Your task to perform on an android device: turn off airplane mode Image 0: 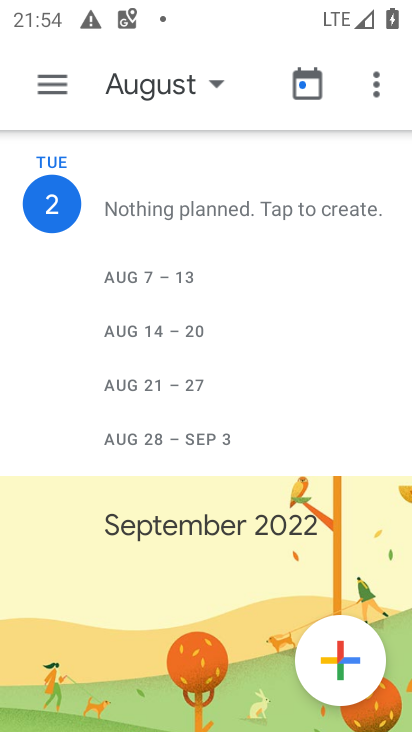
Step 0: press home button
Your task to perform on an android device: turn off airplane mode Image 1: 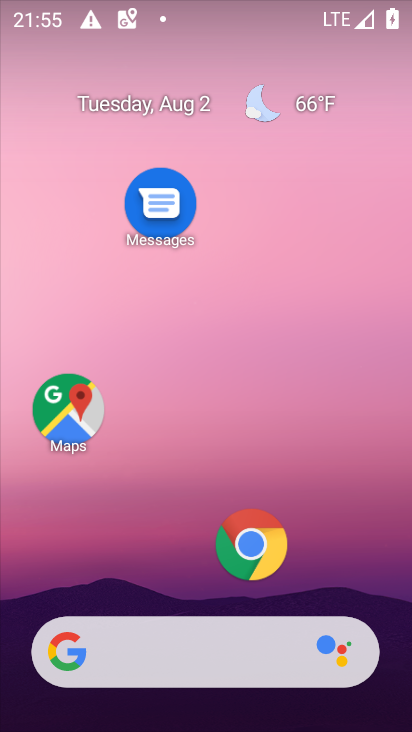
Step 1: drag from (174, 588) to (238, 215)
Your task to perform on an android device: turn off airplane mode Image 2: 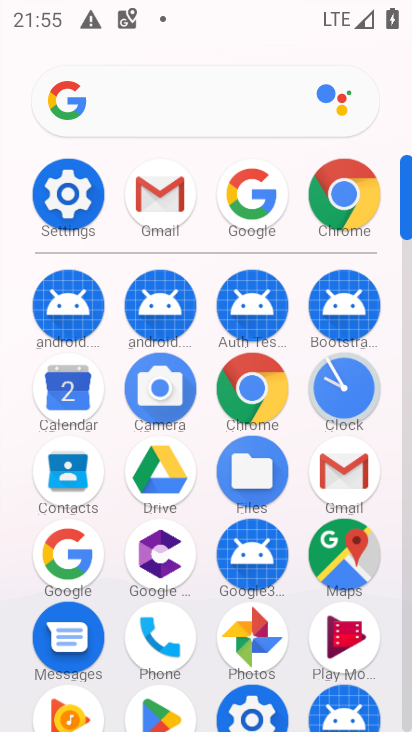
Step 2: click (65, 212)
Your task to perform on an android device: turn off airplane mode Image 3: 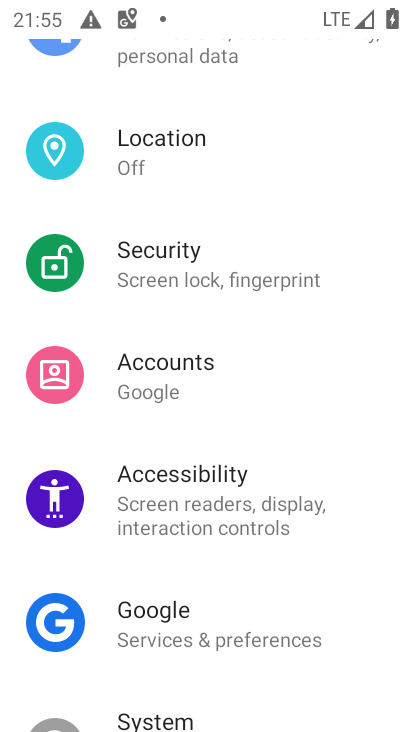
Step 3: drag from (163, 173) to (261, 504)
Your task to perform on an android device: turn off airplane mode Image 4: 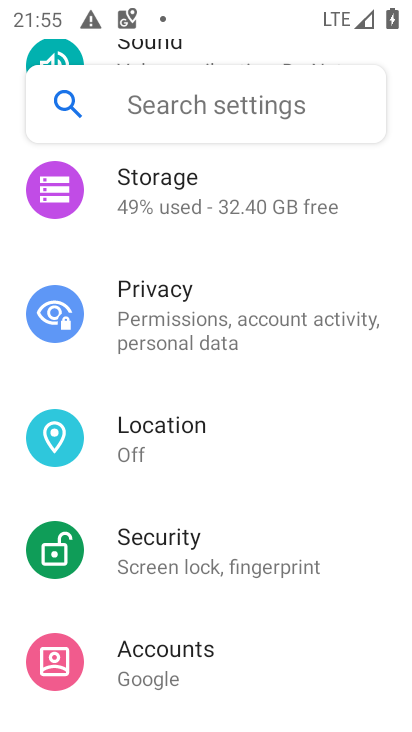
Step 4: drag from (231, 172) to (278, 513)
Your task to perform on an android device: turn off airplane mode Image 5: 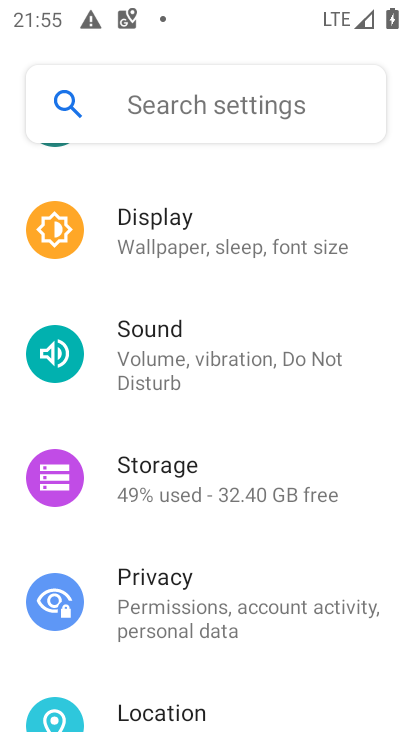
Step 5: drag from (159, 198) to (217, 490)
Your task to perform on an android device: turn off airplane mode Image 6: 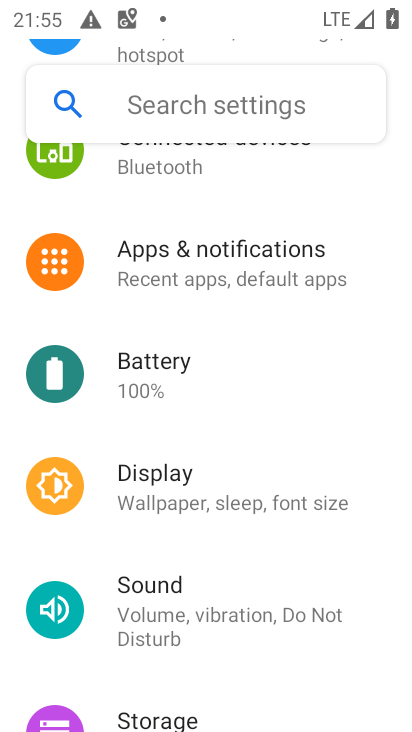
Step 6: drag from (199, 252) to (245, 600)
Your task to perform on an android device: turn off airplane mode Image 7: 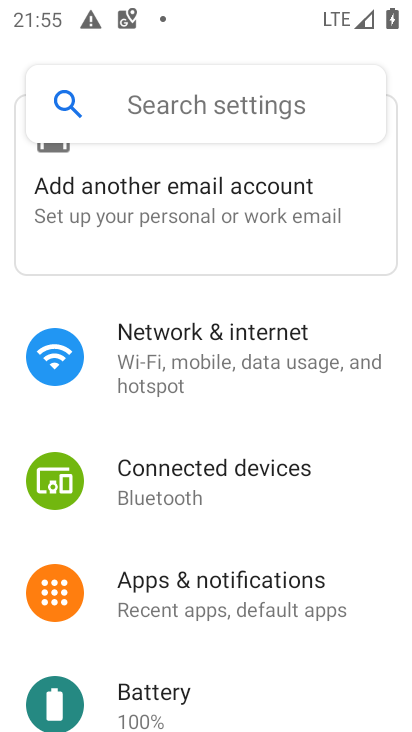
Step 7: click (203, 325)
Your task to perform on an android device: turn off airplane mode Image 8: 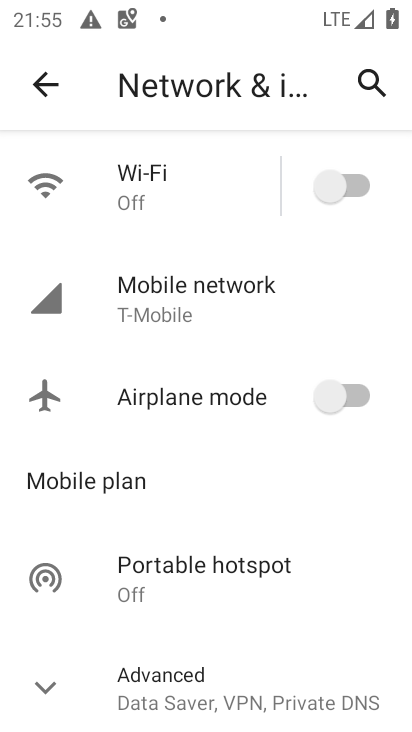
Step 8: task complete